Your task to perform on an android device: turn on wifi Image 0: 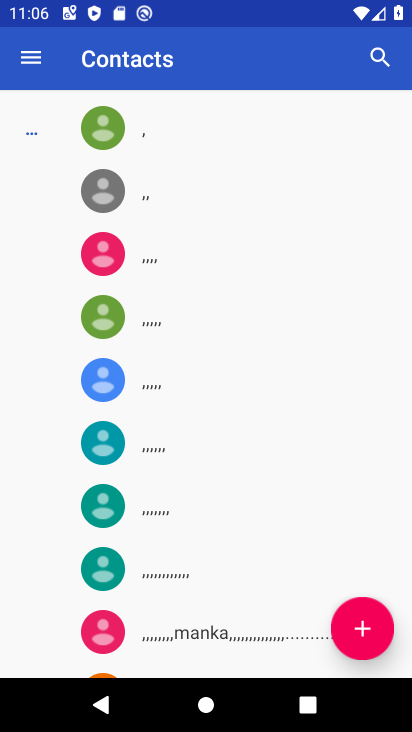
Step 0: press home button
Your task to perform on an android device: turn on wifi Image 1: 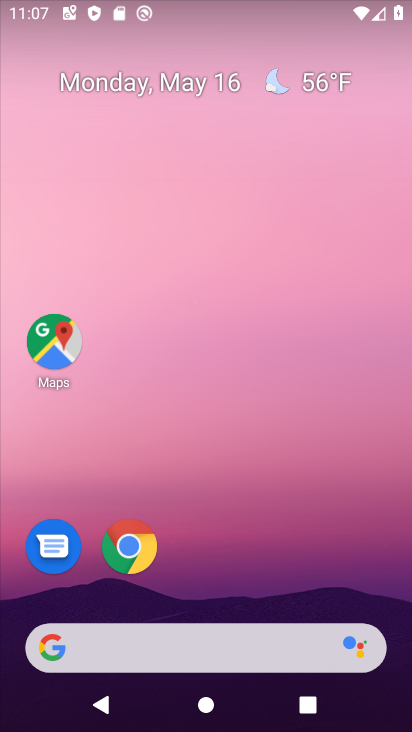
Step 1: drag from (300, 457) to (266, 67)
Your task to perform on an android device: turn on wifi Image 2: 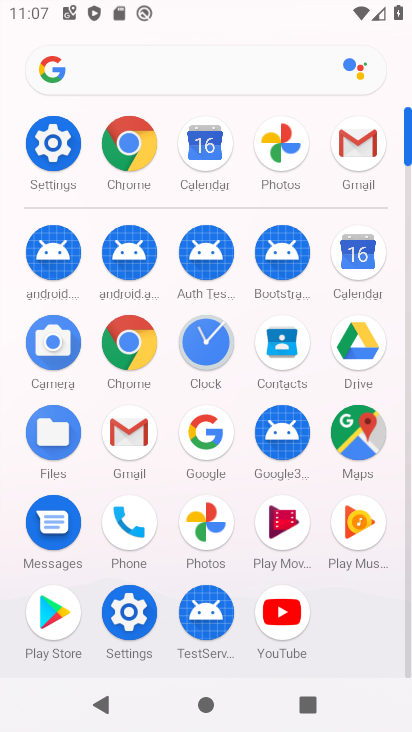
Step 2: click (45, 149)
Your task to perform on an android device: turn on wifi Image 3: 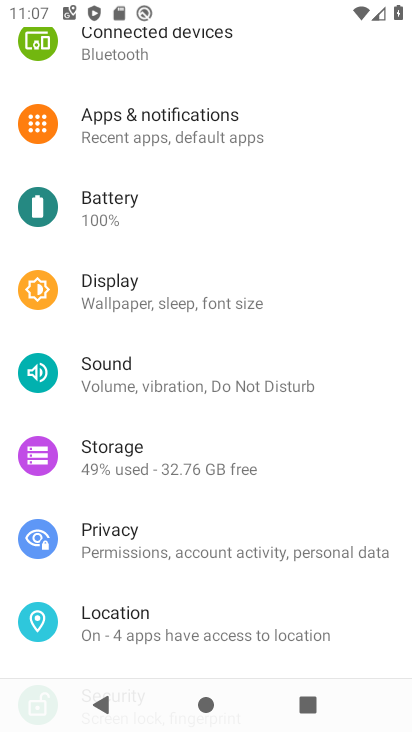
Step 3: drag from (131, 99) to (133, 476)
Your task to perform on an android device: turn on wifi Image 4: 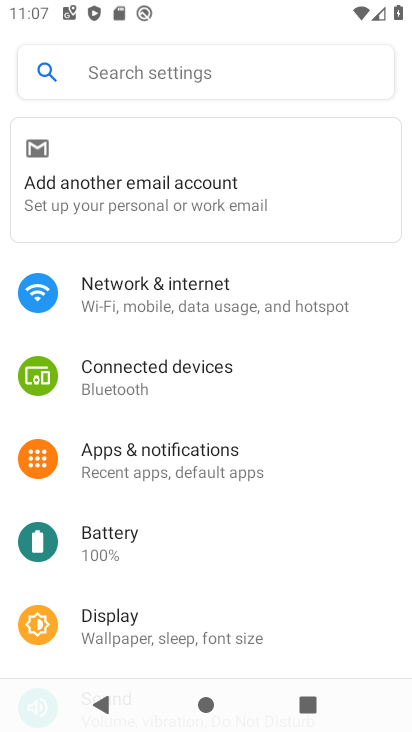
Step 4: drag from (180, 258) to (179, 439)
Your task to perform on an android device: turn on wifi Image 5: 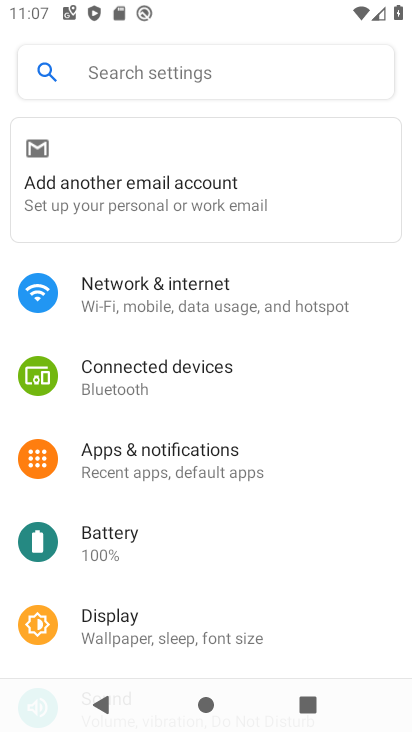
Step 5: click (147, 304)
Your task to perform on an android device: turn on wifi Image 6: 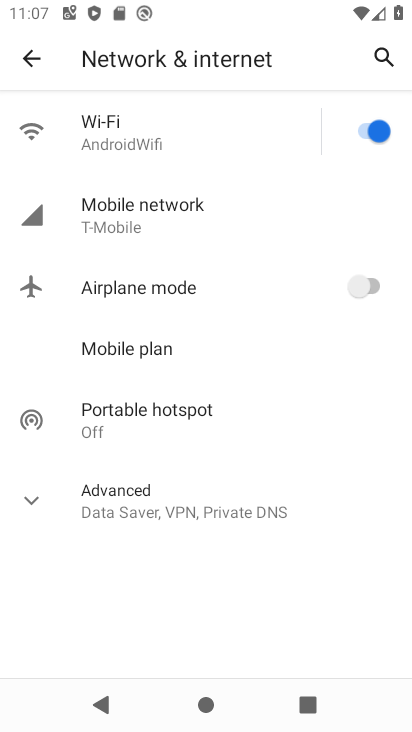
Step 6: click (121, 133)
Your task to perform on an android device: turn on wifi Image 7: 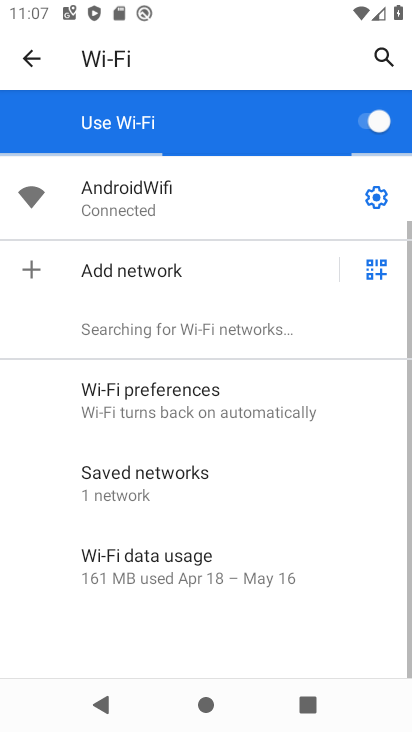
Step 7: task complete